Your task to perform on an android device: check out phone information Image 0: 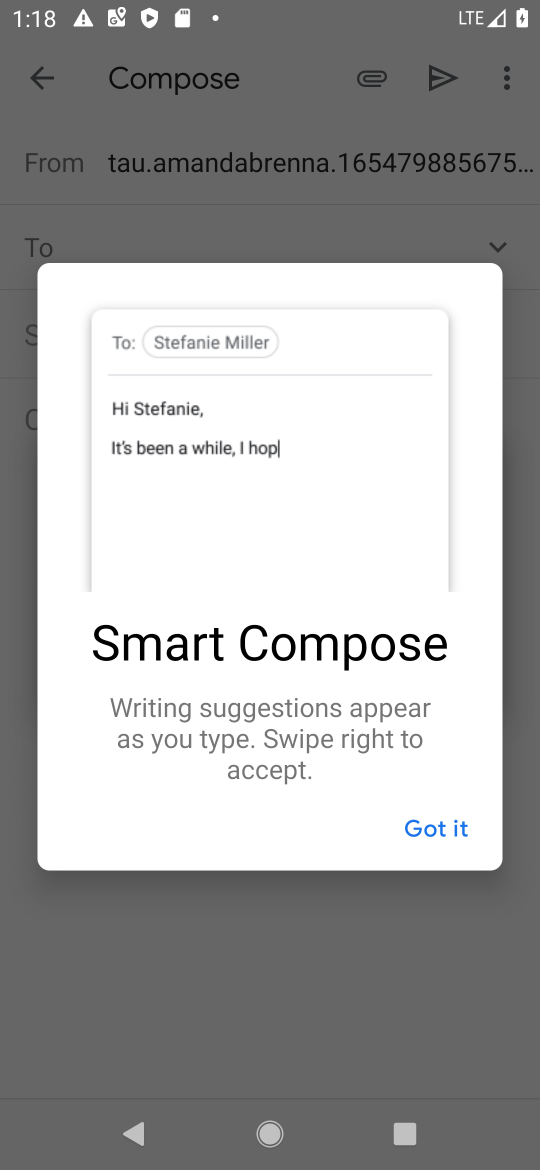
Step 0: press home button
Your task to perform on an android device: check out phone information Image 1: 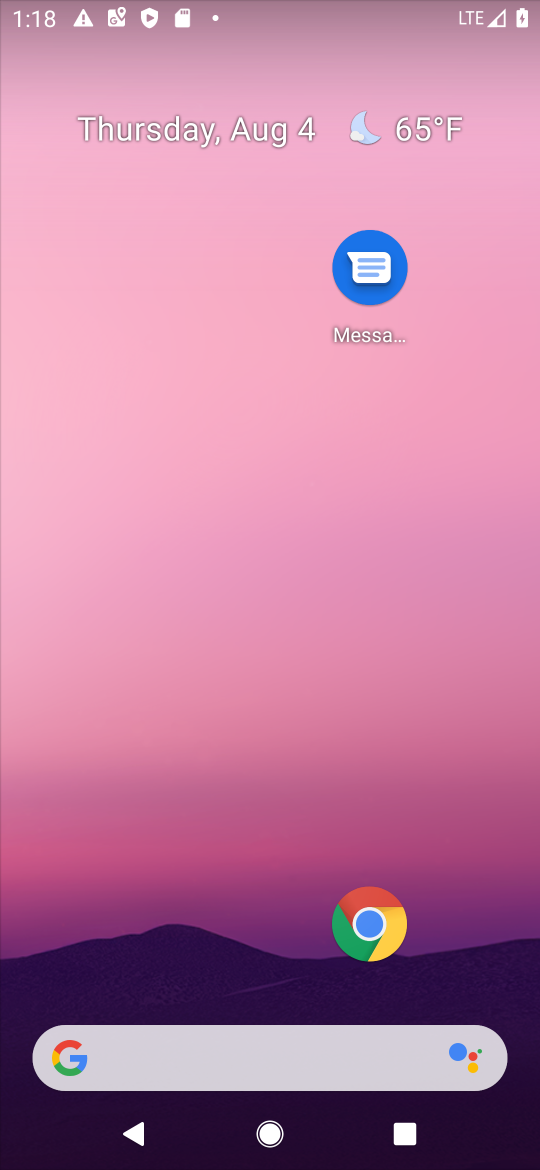
Step 1: drag from (302, 501) to (493, 6)
Your task to perform on an android device: check out phone information Image 2: 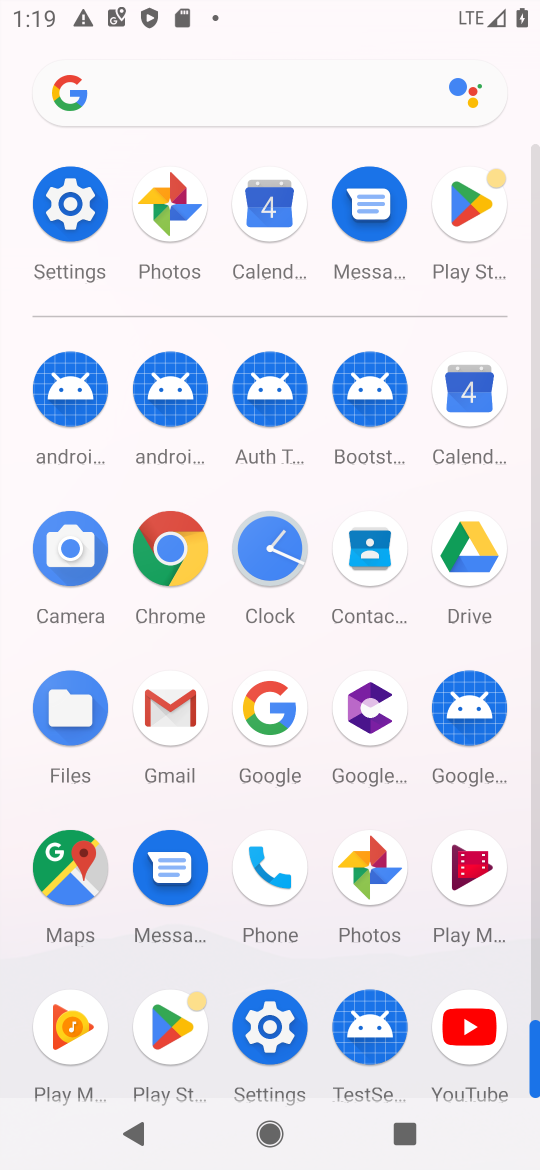
Step 2: click (248, 863)
Your task to perform on an android device: check out phone information Image 3: 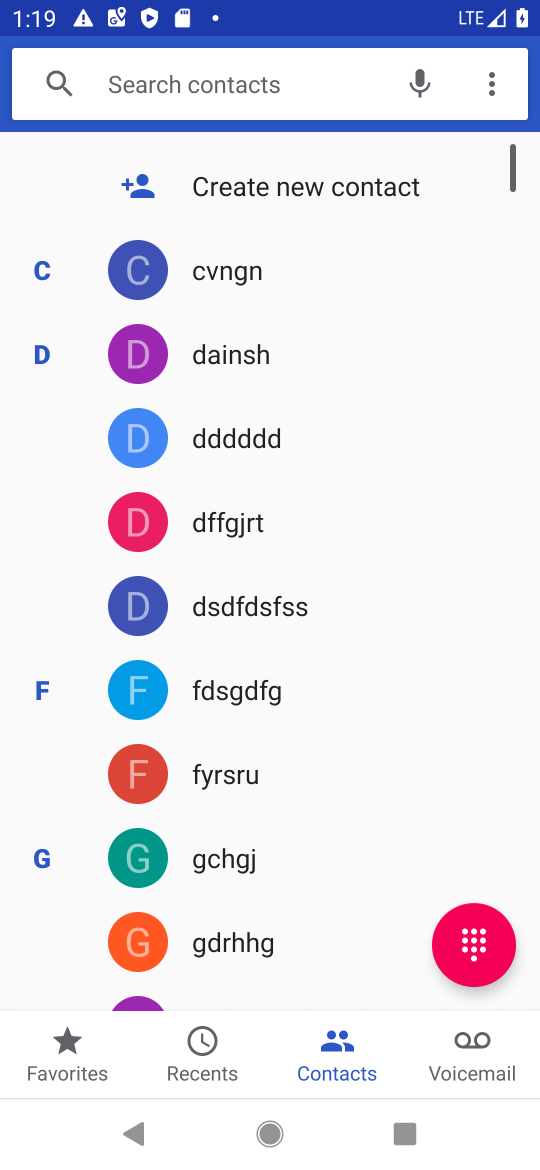
Step 3: task complete